Your task to perform on an android device: create a new album in the google photos Image 0: 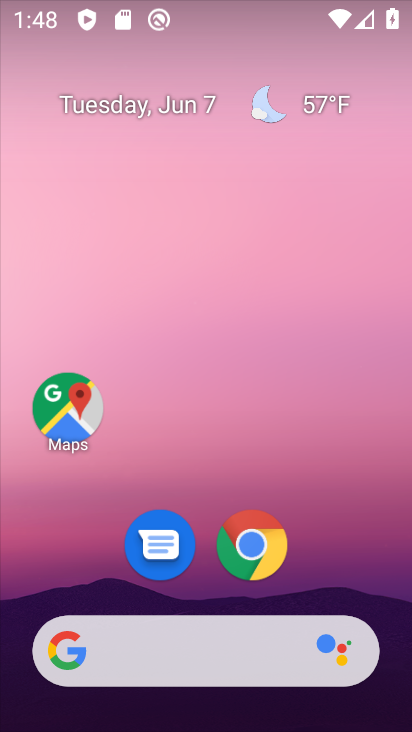
Step 0: drag from (352, 430) to (234, 29)
Your task to perform on an android device: create a new album in the google photos Image 1: 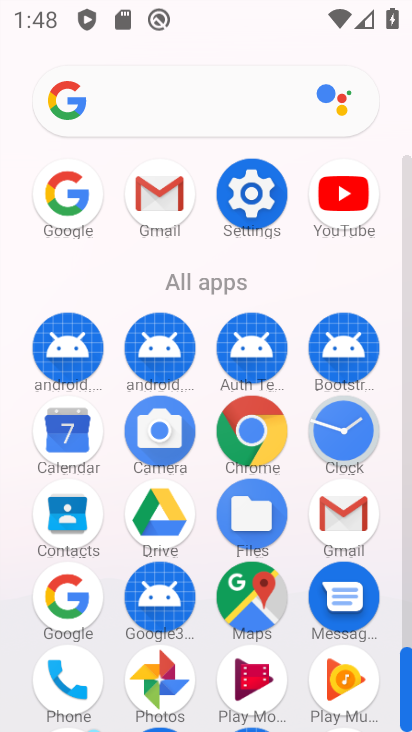
Step 1: click (148, 687)
Your task to perform on an android device: create a new album in the google photos Image 2: 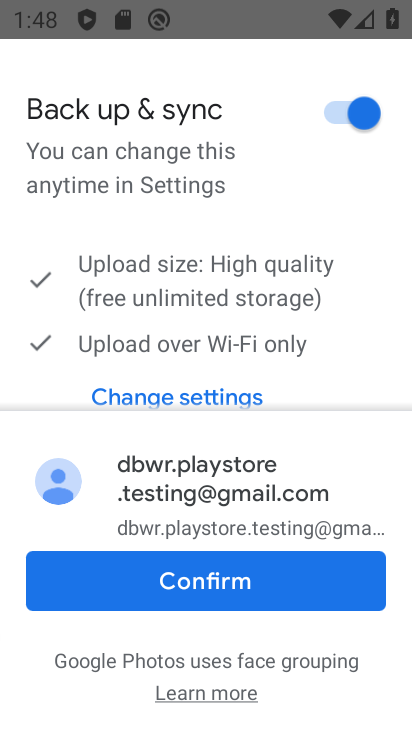
Step 2: click (272, 589)
Your task to perform on an android device: create a new album in the google photos Image 3: 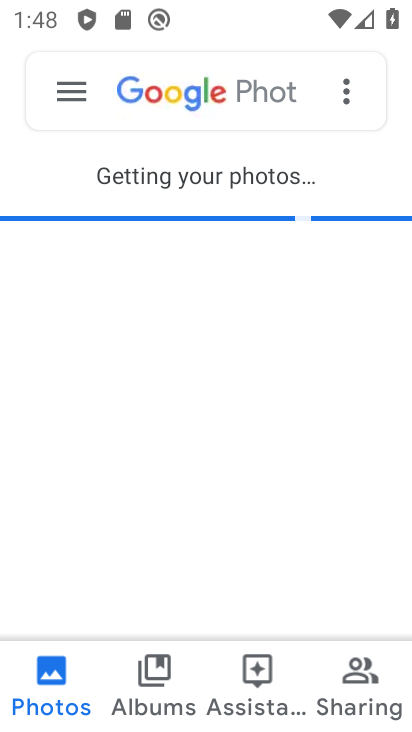
Step 3: click (341, 88)
Your task to perform on an android device: create a new album in the google photos Image 4: 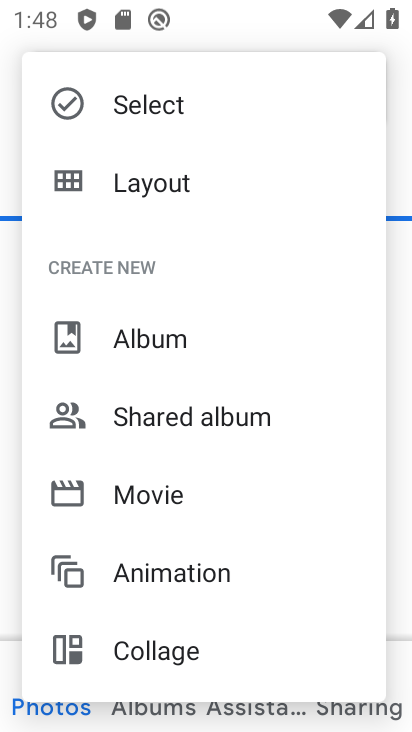
Step 4: click (200, 347)
Your task to perform on an android device: create a new album in the google photos Image 5: 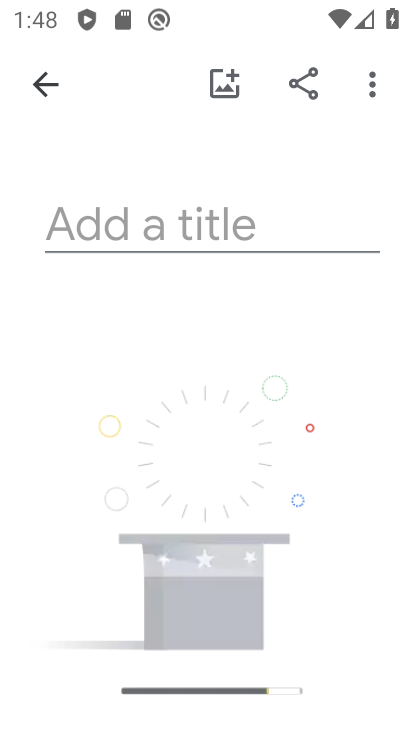
Step 5: click (125, 233)
Your task to perform on an android device: create a new album in the google photos Image 6: 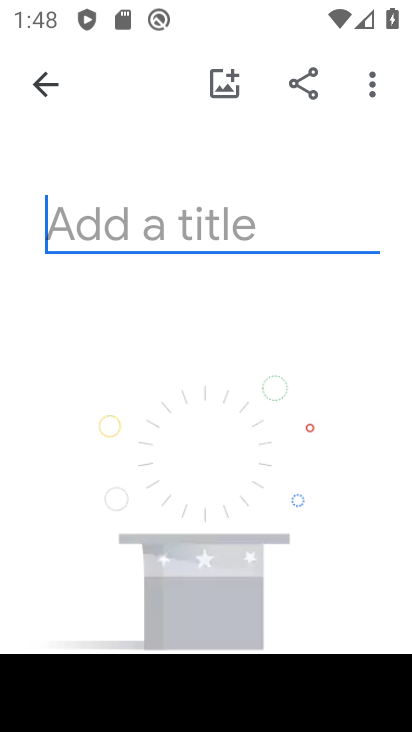
Step 6: type "fsdfgsd"
Your task to perform on an android device: create a new album in the google photos Image 7: 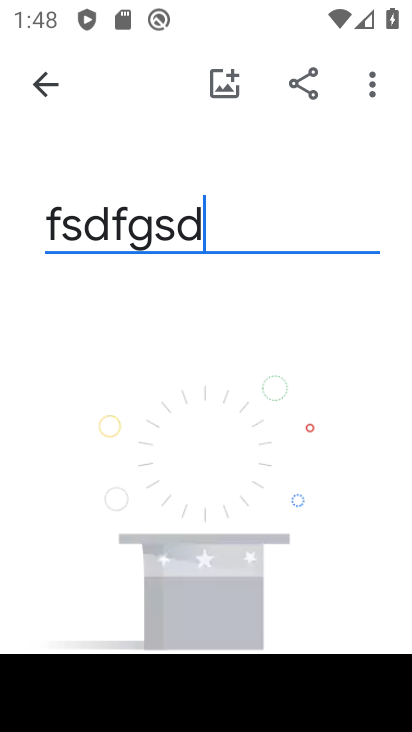
Step 7: drag from (240, 428) to (226, 116)
Your task to perform on an android device: create a new album in the google photos Image 8: 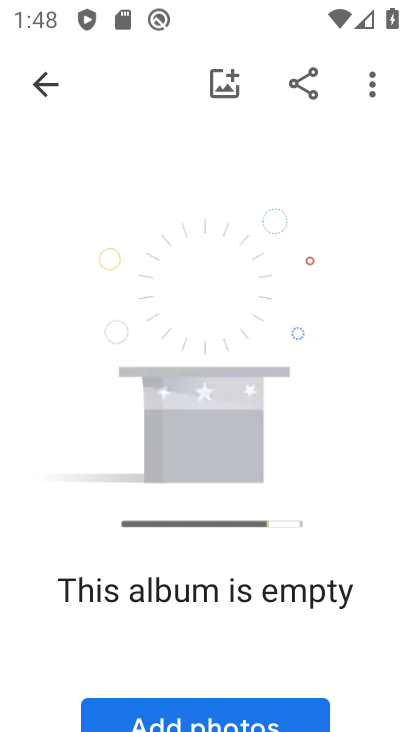
Step 8: click (240, 713)
Your task to perform on an android device: create a new album in the google photos Image 9: 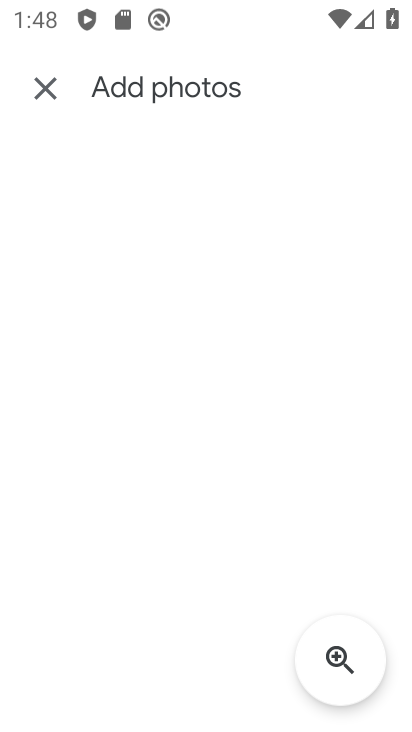
Step 9: drag from (204, 605) to (221, 186)
Your task to perform on an android device: create a new album in the google photos Image 10: 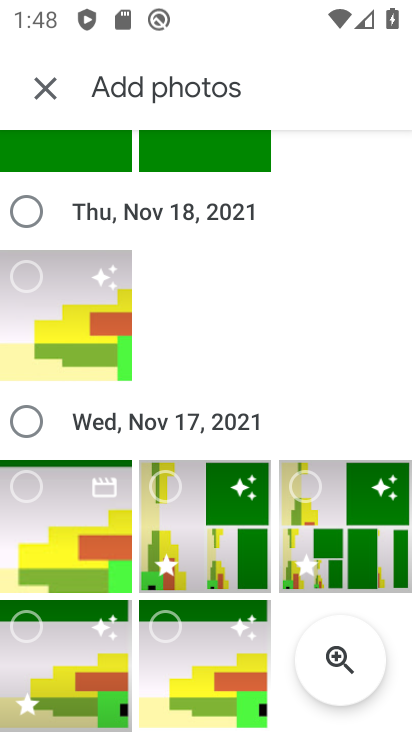
Step 10: click (69, 324)
Your task to perform on an android device: create a new album in the google photos Image 11: 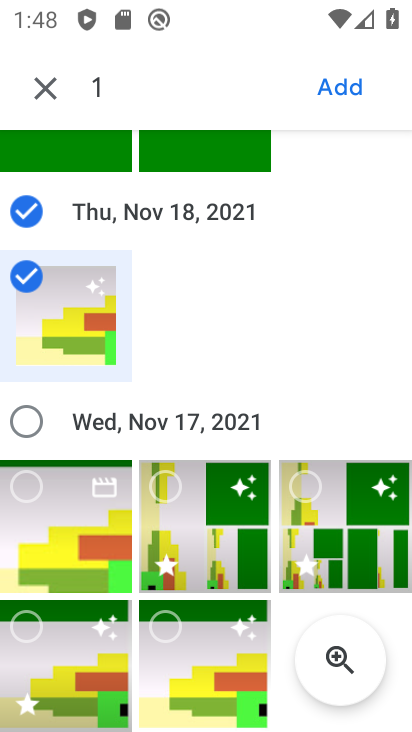
Step 11: click (96, 525)
Your task to perform on an android device: create a new album in the google photos Image 12: 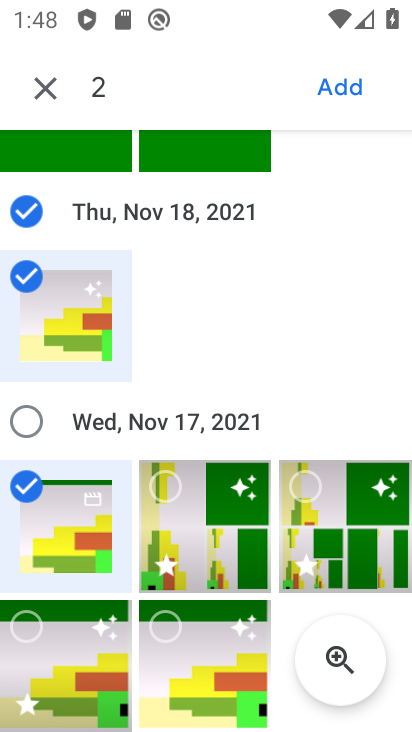
Step 12: click (340, 84)
Your task to perform on an android device: create a new album in the google photos Image 13: 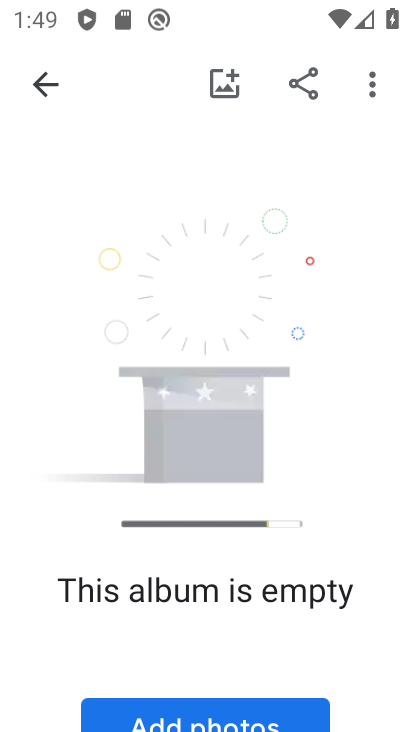
Step 13: task complete